Your task to perform on an android device: turn on improve location accuracy Image 0: 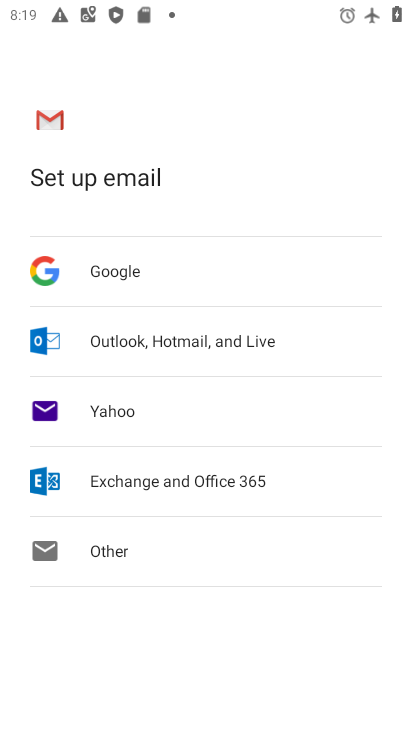
Step 0: press home button
Your task to perform on an android device: turn on improve location accuracy Image 1: 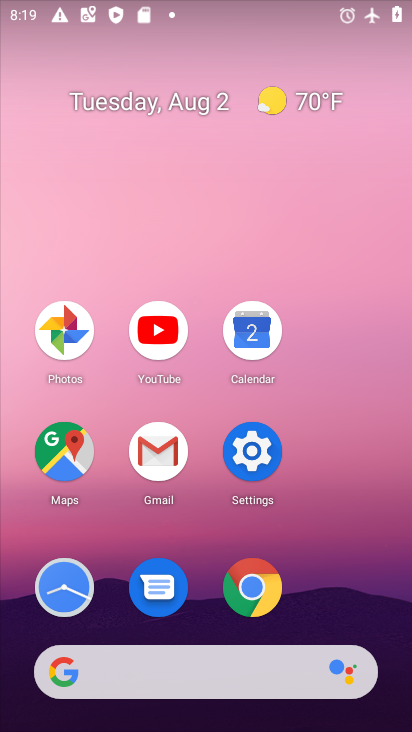
Step 1: click (252, 449)
Your task to perform on an android device: turn on improve location accuracy Image 2: 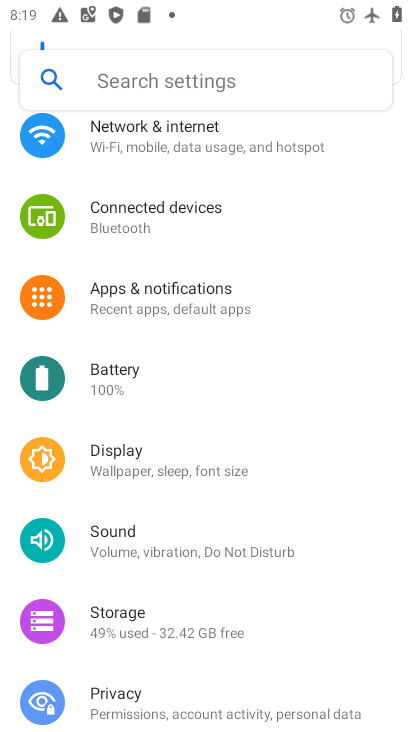
Step 2: drag from (182, 602) to (134, 161)
Your task to perform on an android device: turn on improve location accuracy Image 3: 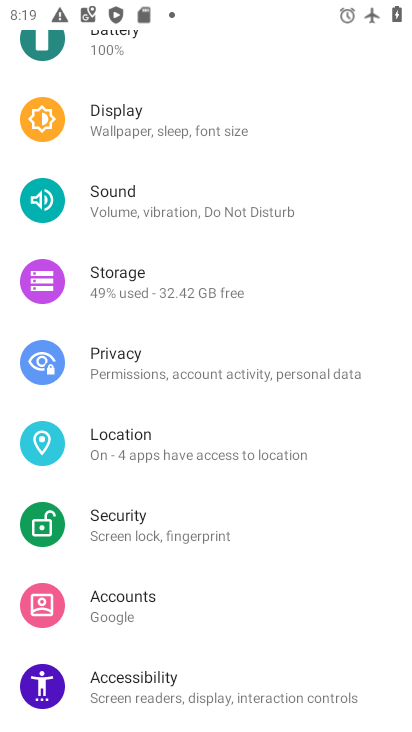
Step 3: click (132, 437)
Your task to perform on an android device: turn on improve location accuracy Image 4: 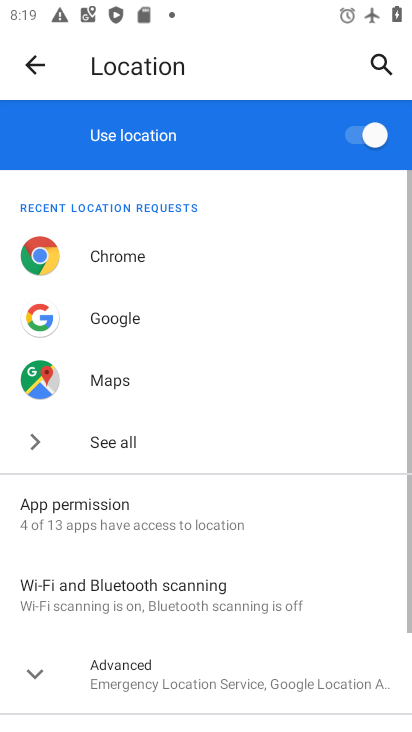
Step 4: task complete